Your task to perform on an android device: Do I have any events tomorrow? Image 0: 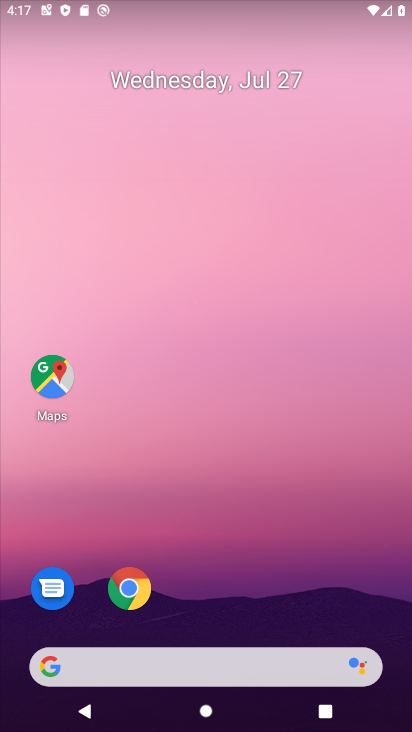
Step 0: drag from (227, 724) to (218, 251)
Your task to perform on an android device: Do I have any events tomorrow? Image 1: 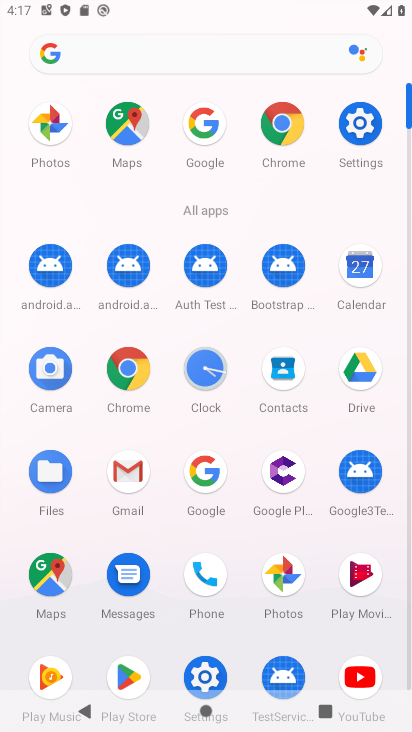
Step 1: click (371, 281)
Your task to perform on an android device: Do I have any events tomorrow? Image 2: 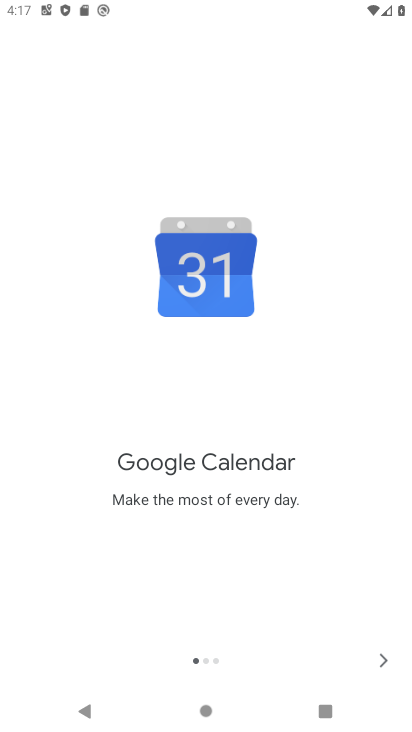
Step 2: click (381, 658)
Your task to perform on an android device: Do I have any events tomorrow? Image 3: 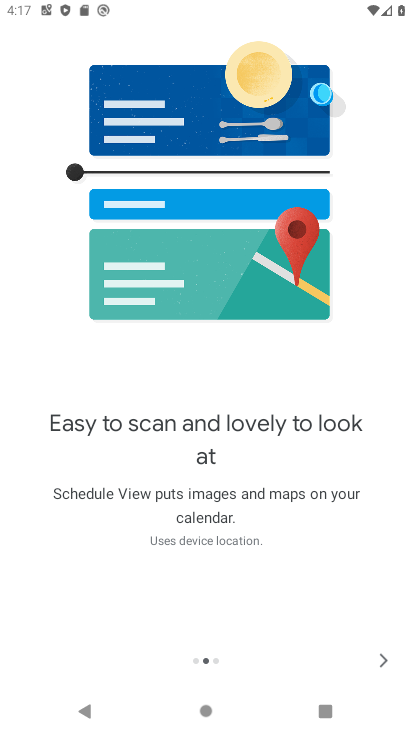
Step 3: click (381, 658)
Your task to perform on an android device: Do I have any events tomorrow? Image 4: 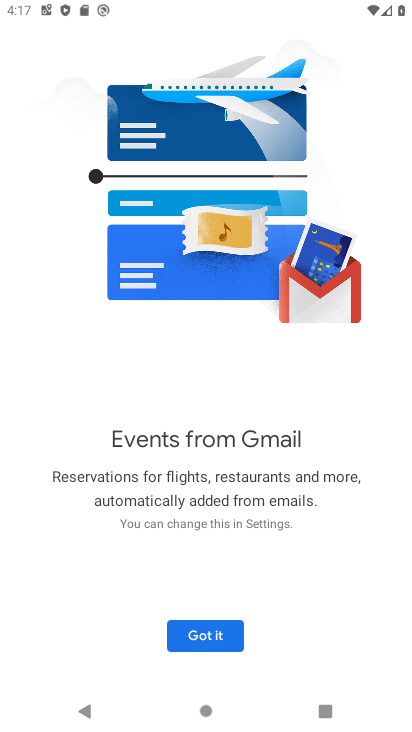
Step 4: click (203, 635)
Your task to perform on an android device: Do I have any events tomorrow? Image 5: 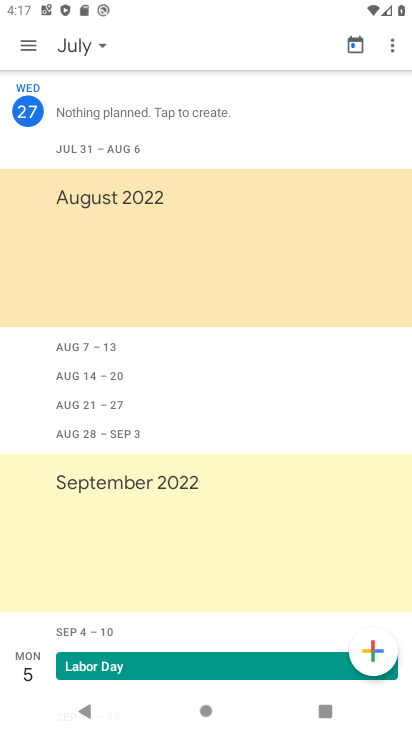
Step 5: click (97, 48)
Your task to perform on an android device: Do I have any events tomorrow? Image 6: 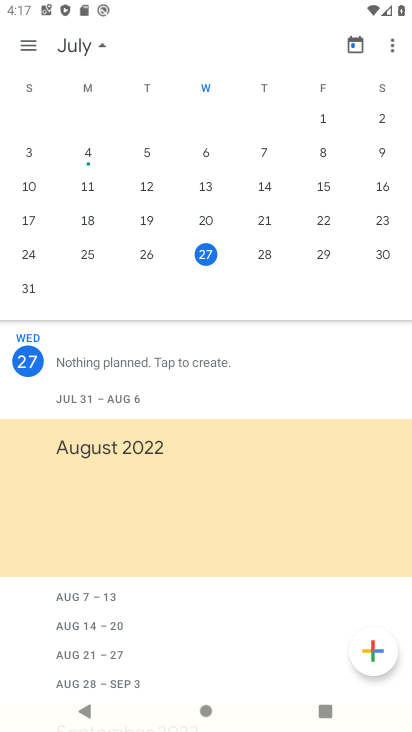
Step 6: click (264, 253)
Your task to perform on an android device: Do I have any events tomorrow? Image 7: 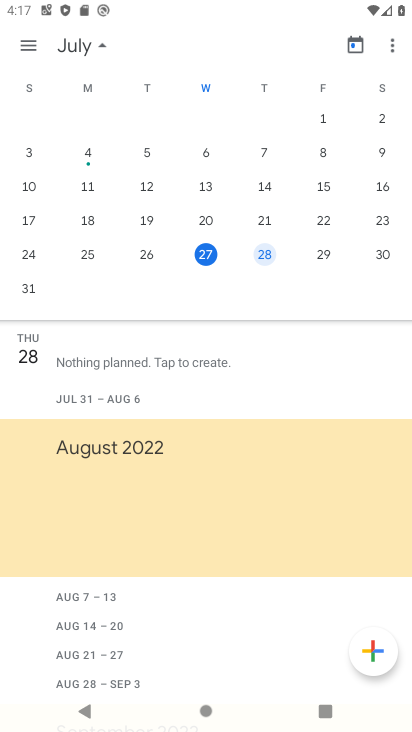
Step 7: task complete